Your task to perform on an android device: Open Yahoo.com Image 0: 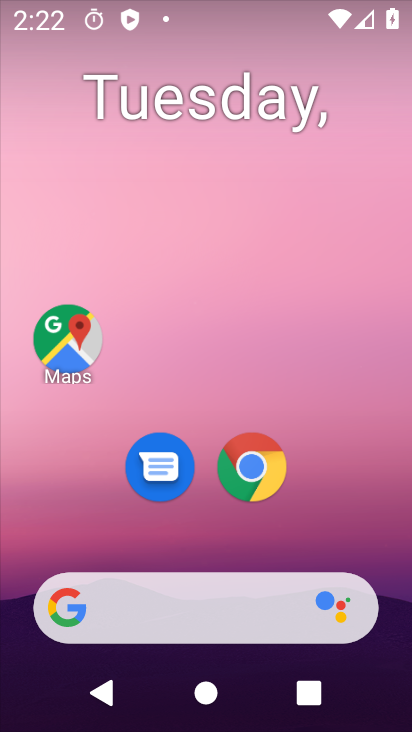
Step 0: drag from (375, 544) to (364, 125)
Your task to perform on an android device: Open Yahoo.com Image 1: 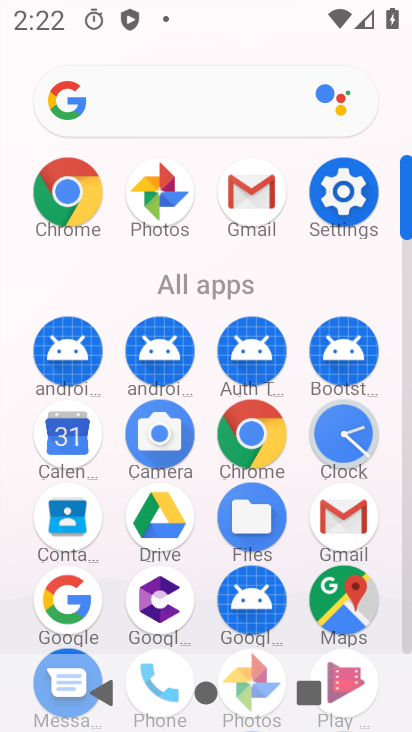
Step 1: click (263, 449)
Your task to perform on an android device: Open Yahoo.com Image 2: 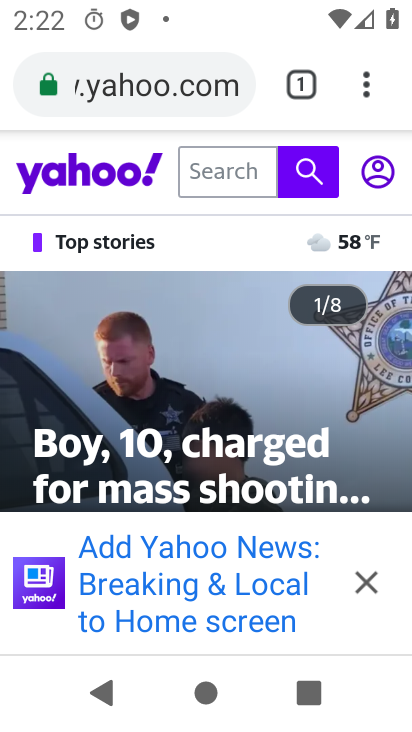
Step 2: click (181, 79)
Your task to perform on an android device: Open Yahoo.com Image 3: 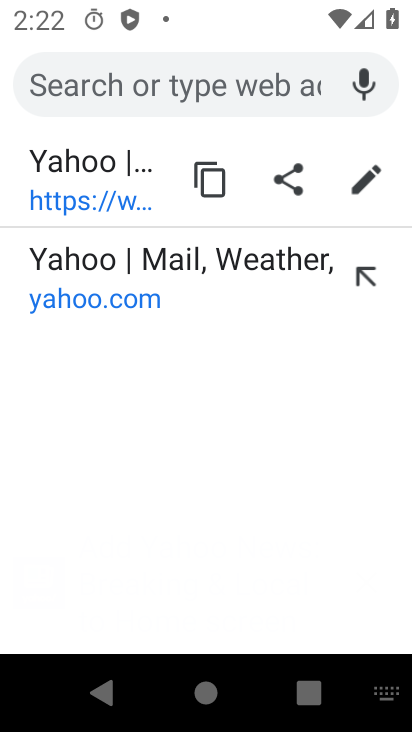
Step 3: type "yahoo.com"
Your task to perform on an android device: Open Yahoo.com Image 4: 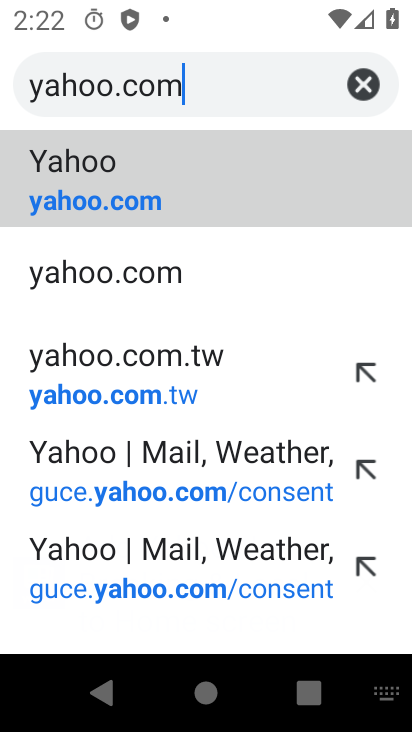
Step 4: click (101, 184)
Your task to perform on an android device: Open Yahoo.com Image 5: 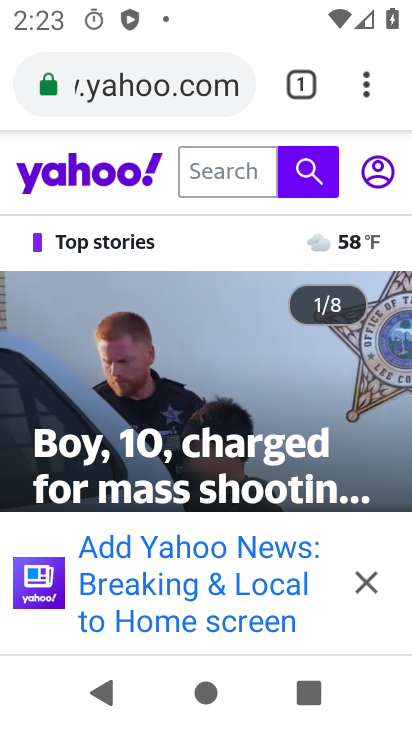
Step 5: task complete